Your task to perform on an android device: empty trash in the gmail app Image 0: 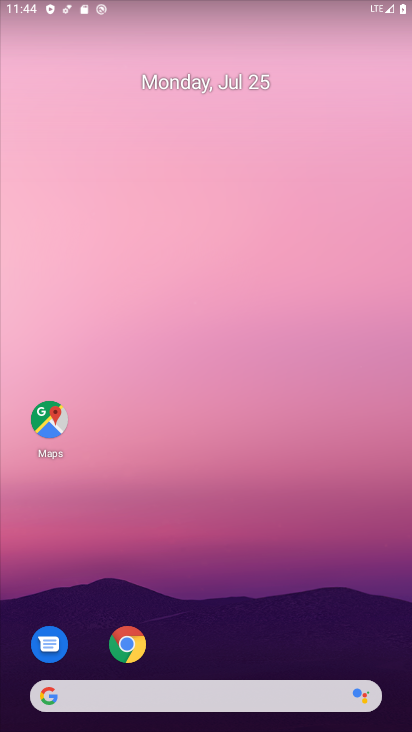
Step 0: drag from (94, 710) to (157, 111)
Your task to perform on an android device: empty trash in the gmail app Image 1: 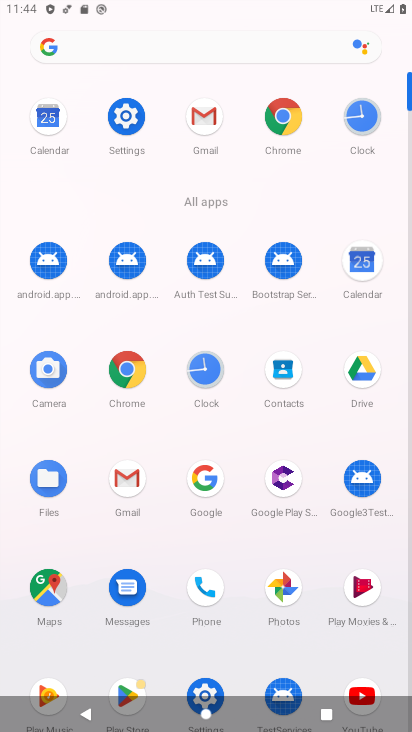
Step 1: click (196, 124)
Your task to perform on an android device: empty trash in the gmail app Image 2: 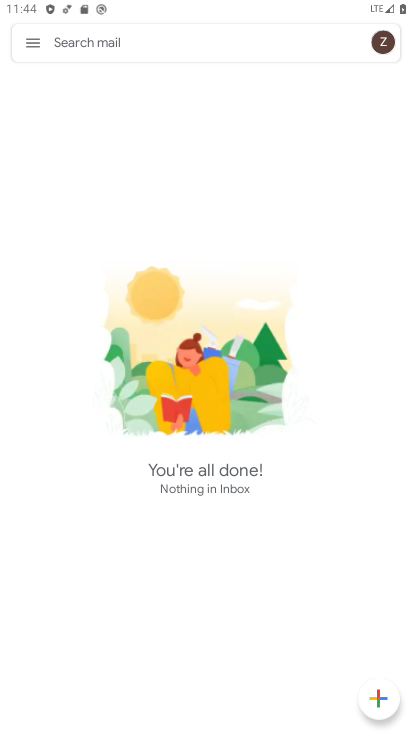
Step 2: click (29, 42)
Your task to perform on an android device: empty trash in the gmail app Image 3: 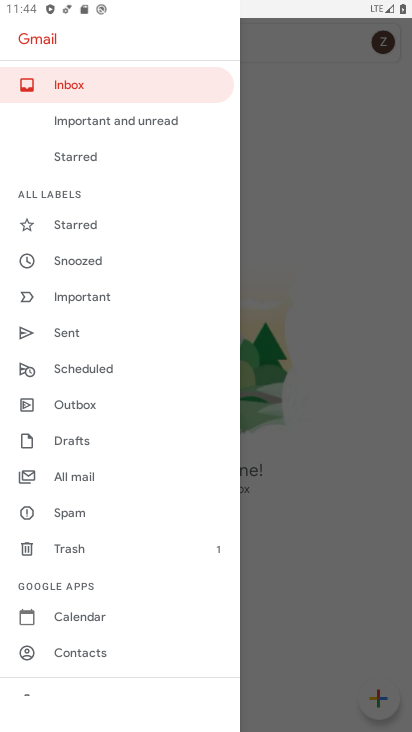
Step 3: click (90, 547)
Your task to perform on an android device: empty trash in the gmail app Image 4: 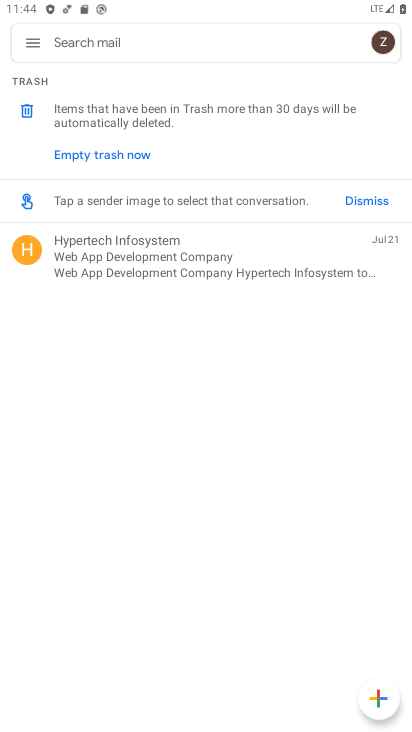
Step 4: click (91, 155)
Your task to perform on an android device: empty trash in the gmail app Image 5: 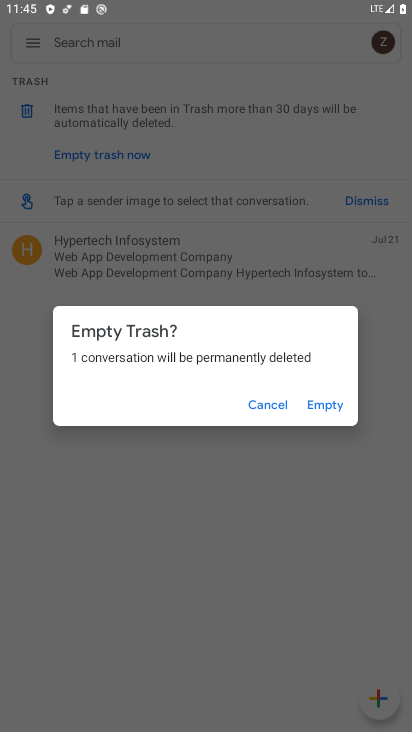
Step 5: click (341, 402)
Your task to perform on an android device: empty trash in the gmail app Image 6: 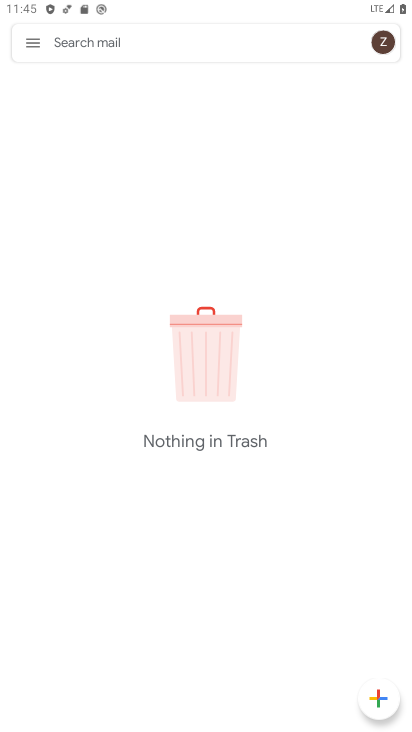
Step 6: task complete